Your task to perform on an android device: Clear the shopping cart on ebay. Search for "beats solo 3" on ebay, select the first entry, and add it to the cart. Image 0: 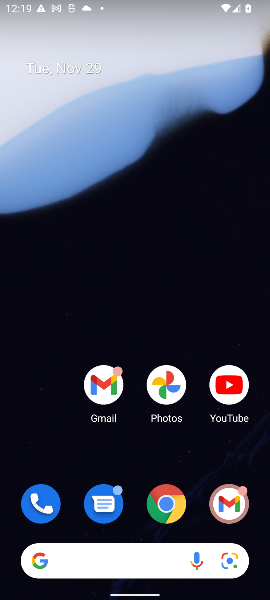
Step 0: click (163, 505)
Your task to perform on an android device: Clear the shopping cart on ebay. Search for "beats solo 3" on ebay, select the first entry, and add it to the cart. Image 1: 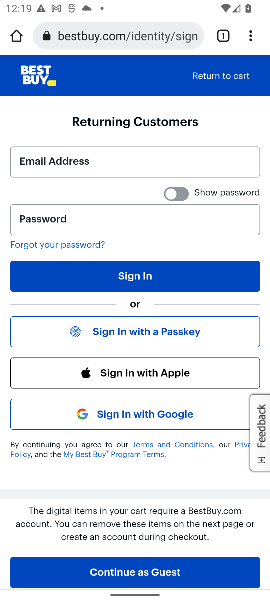
Step 1: click (104, 33)
Your task to perform on an android device: Clear the shopping cart on ebay. Search for "beats solo 3" on ebay, select the first entry, and add it to the cart. Image 2: 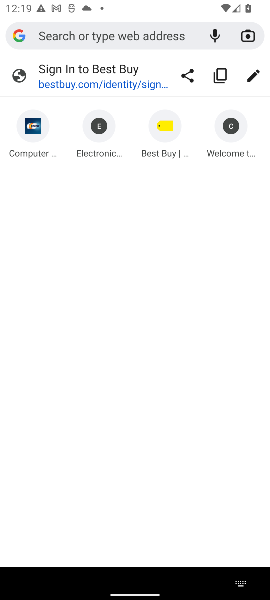
Step 2: type "ebay.com"
Your task to perform on an android device: Clear the shopping cart on ebay. Search for "beats solo 3" on ebay, select the first entry, and add it to the cart. Image 3: 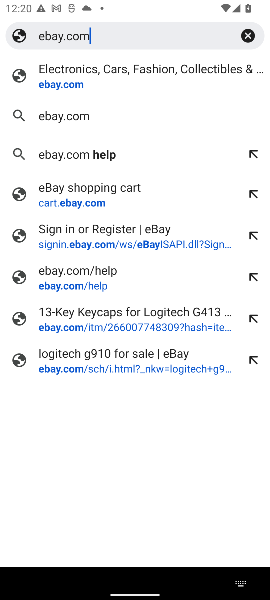
Step 3: click (64, 86)
Your task to perform on an android device: Clear the shopping cart on ebay. Search for "beats solo 3" on ebay, select the first entry, and add it to the cart. Image 4: 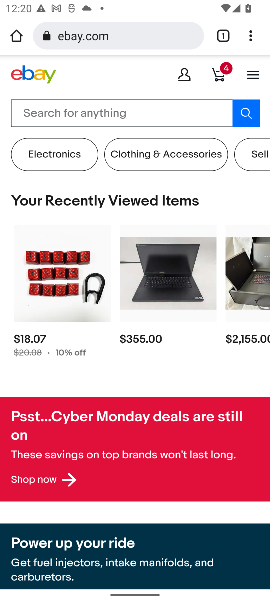
Step 4: click (220, 72)
Your task to perform on an android device: Clear the shopping cart on ebay. Search for "beats solo 3" on ebay, select the first entry, and add it to the cart. Image 5: 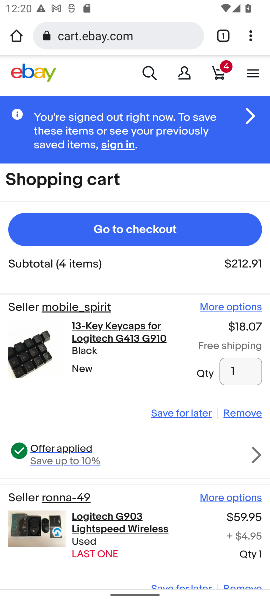
Step 5: click (249, 417)
Your task to perform on an android device: Clear the shopping cart on ebay. Search for "beats solo 3" on ebay, select the first entry, and add it to the cart. Image 6: 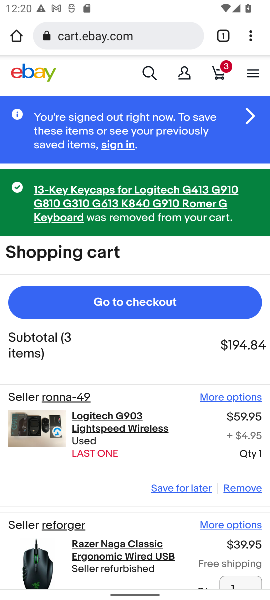
Step 6: click (233, 487)
Your task to perform on an android device: Clear the shopping cart on ebay. Search for "beats solo 3" on ebay, select the first entry, and add it to the cart. Image 7: 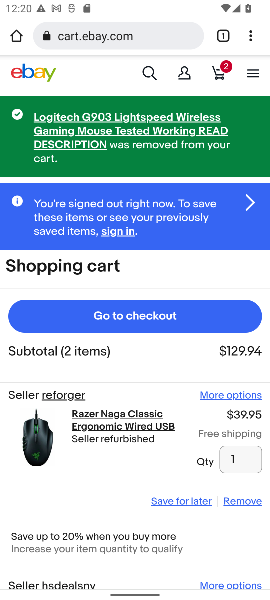
Step 7: click (233, 503)
Your task to perform on an android device: Clear the shopping cart on ebay. Search for "beats solo 3" on ebay, select the first entry, and add it to the cart. Image 8: 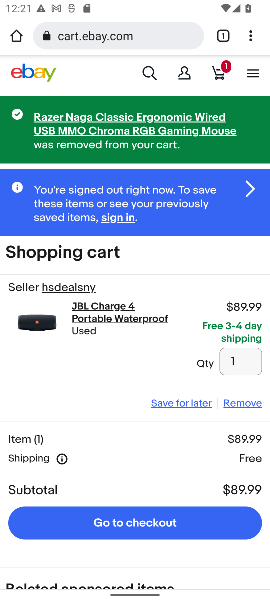
Step 8: click (239, 406)
Your task to perform on an android device: Clear the shopping cart on ebay. Search for "beats solo 3" on ebay, select the first entry, and add it to the cart. Image 9: 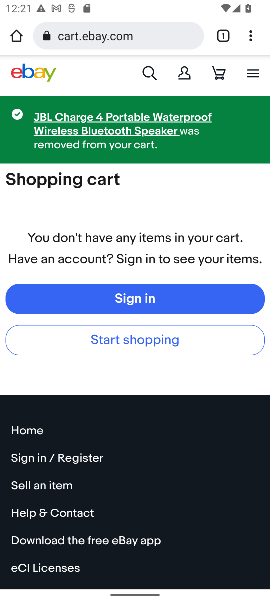
Step 9: click (143, 69)
Your task to perform on an android device: Clear the shopping cart on ebay. Search for "beats solo 3" on ebay, select the first entry, and add it to the cart. Image 10: 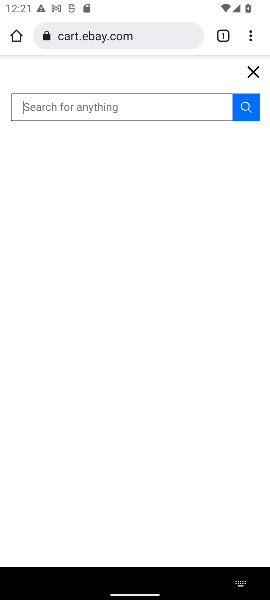
Step 10: type "beats solo 3"
Your task to perform on an android device: Clear the shopping cart on ebay. Search for "beats solo 3" on ebay, select the first entry, and add it to the cart. Image 11: 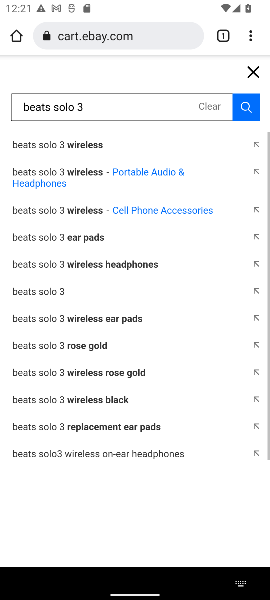
Step 11: click (46, 288)
Your task to perform on an android device: Clear the shopping cart on ebay. Search for "beats solo 3" on ebay, select the first entry, and add it to the cart. Image 12: 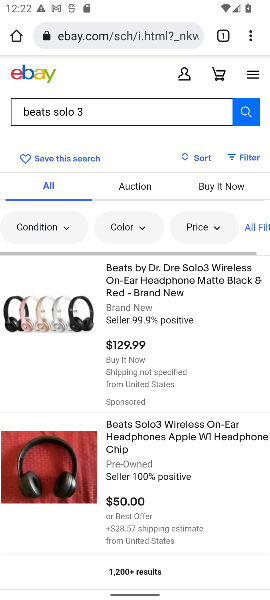
Step 12: click (145, 289)
Your task to perform on an android device: Clear the shopping cart on ebay. Search for "beats solo 3" on ebay, select the first entry, and add it to the cart. Image 13: 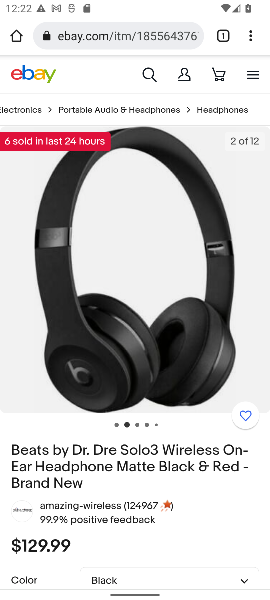
Step 13: drag from (138, 353) to (150, 201)
Your task to perform on an android device: Clear the shopping cart on ebay. Search for "beats solo 3" on ebay, select the first entry, and add it to the cart. Image 14: 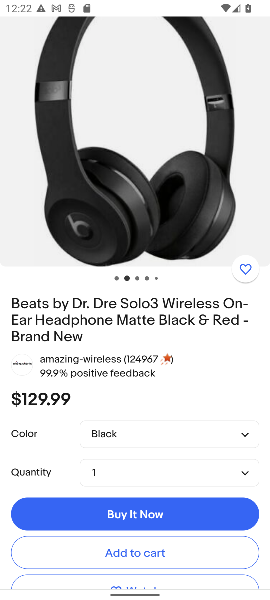
Step 14: click (127, 551)
Your task to perform on an android device: Clear the shopping cart on ebay. Search for "beats solo 3" on ebay, select the first entry, and add it to the cart. Image 15: 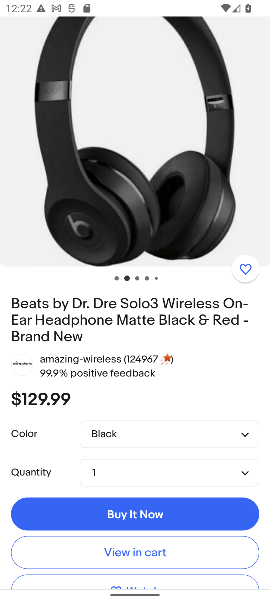
Step 15: task complete